Your task to perform on an android device: change keyboard looks Image 0: 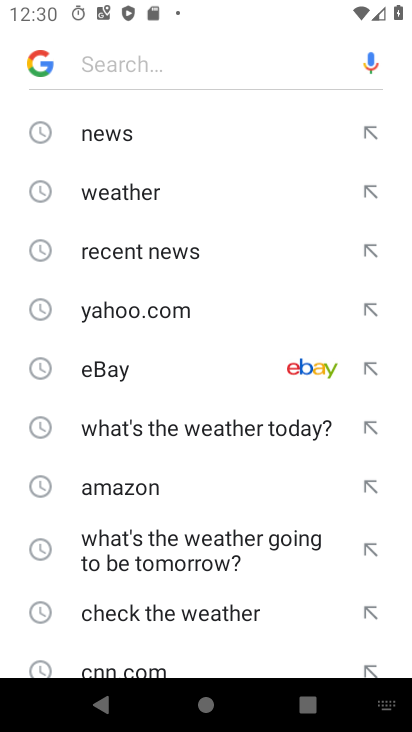
Step 0: press home button
Your task to perform on an android device: change keyboard looks Image 1: 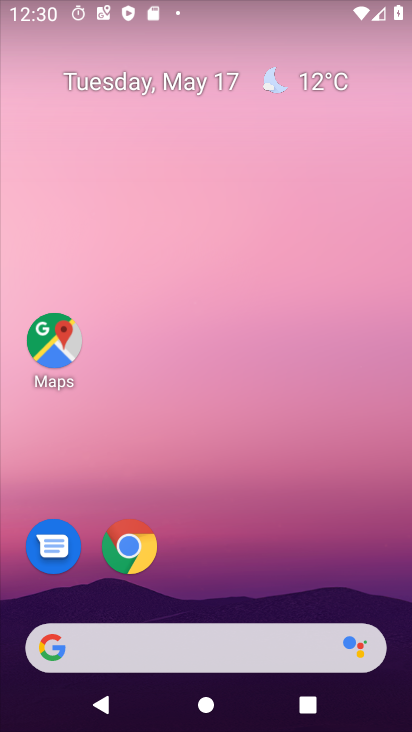
Step 1: drag from (178, 647) to (299, 234)
Your task to perform on an android device: change keyboard looks Image 2: 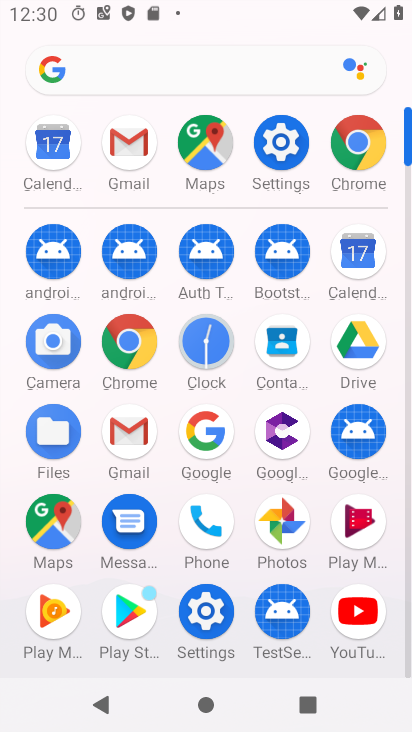
Step 2: click (276, 154)
Your task to perform on an android device: change keyboard looks Image 3: 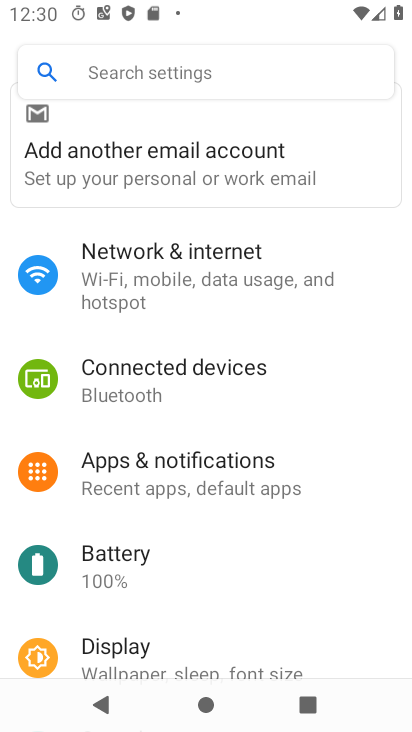
Step 3: drag from (187, 612) to (309, 264)
Your task to perform on an android device: change keyboard looks Image 4: 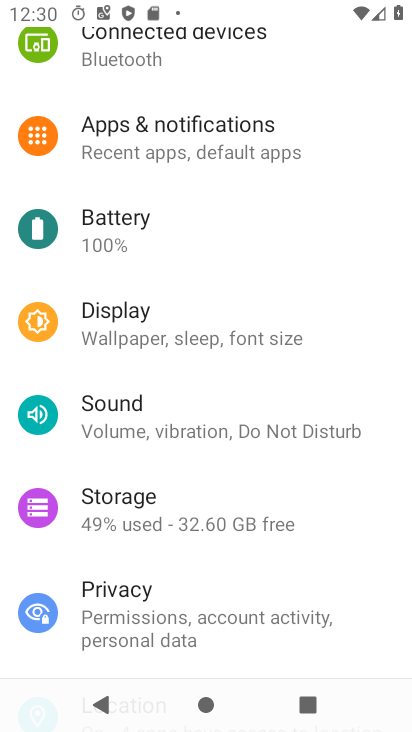
Step 4: drag from (212, 545) to (403, 79)
Your task to perform on an android device: change keyboard looks Image 5: 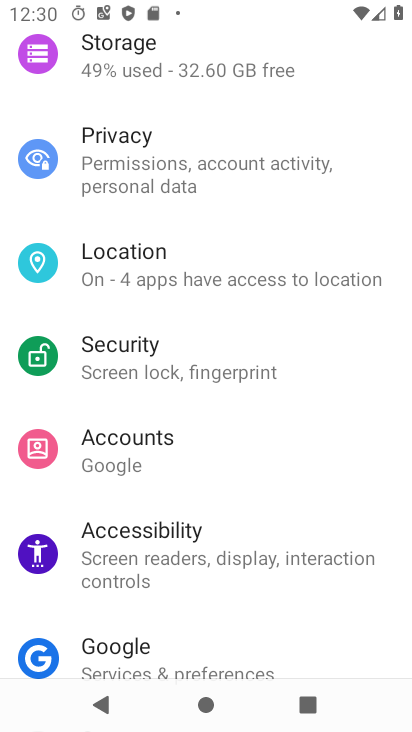
Step 5: drag from (208, 612) to (337, 195)
Your task to perform on an android device: change keyboard looks Image 6: 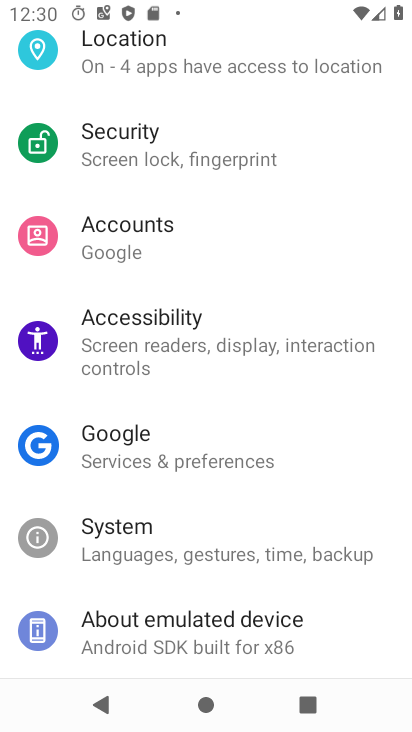
Step 6: click (202, 547)
Your task to perform on an android device: change keyboard looks Image 7: 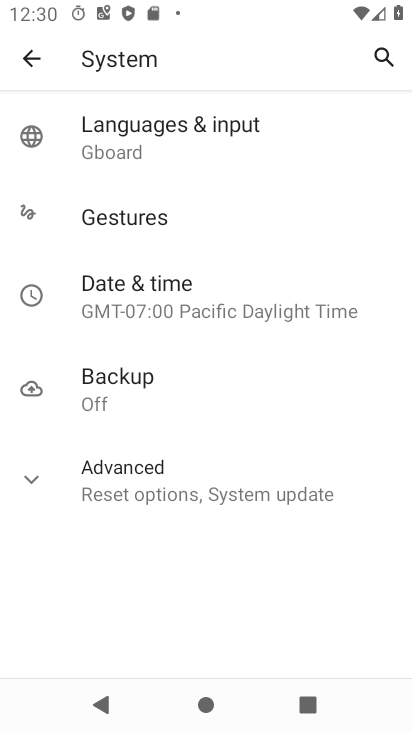
Step 7: click (192, 131)
Your task to perform on an android device: change keyboard looks Image 8: 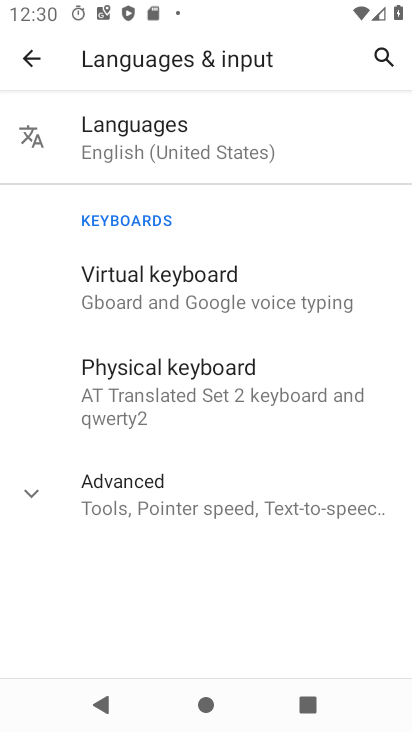
Step 8: click (195, 285)
Your task to perform on an android device: change keyboard looks Image 9: 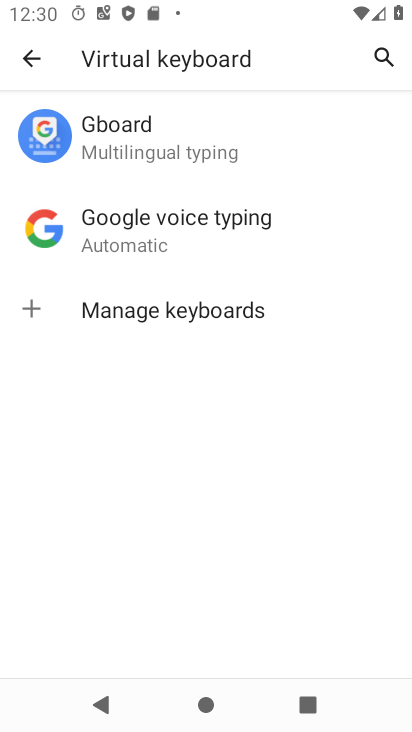
Step 9: click (166, 131)
Your task to perform on an android device: change keyboard looks Image 10: 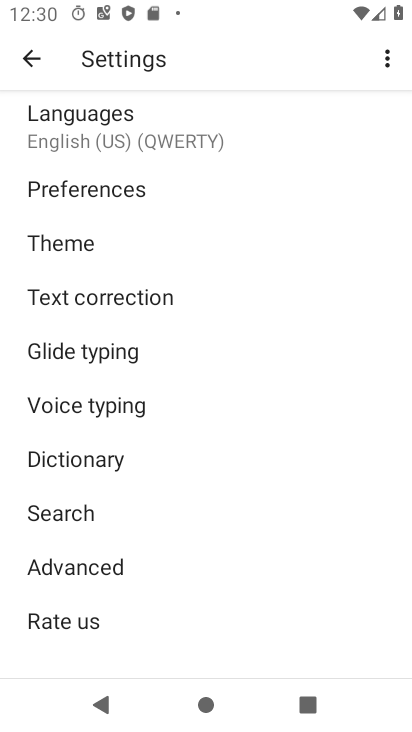
Step 10: click (74, 233)
Your task to perform on an android device: change keyboard looks Image 11: 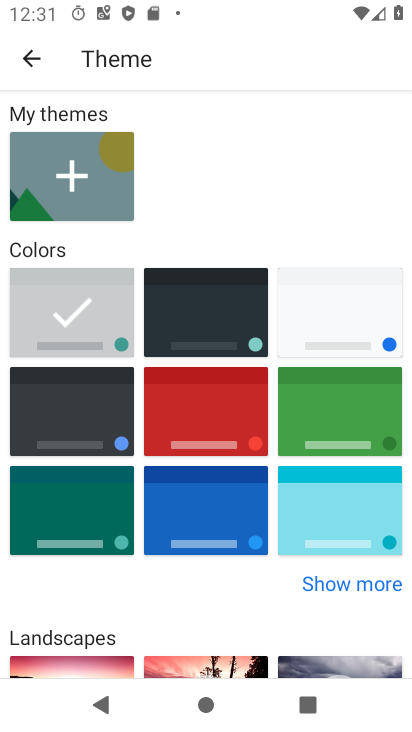
Step 11: drag from (259, 608) to (336, 222)
Your task to perform on an android device: change keyboard looks Image 12: 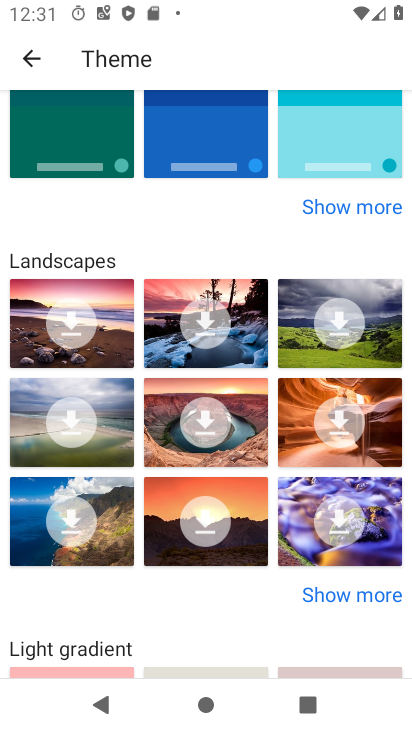
Step 12: click (232, 142)
Your task to perform on an android device: change keyboard looks Image 13: 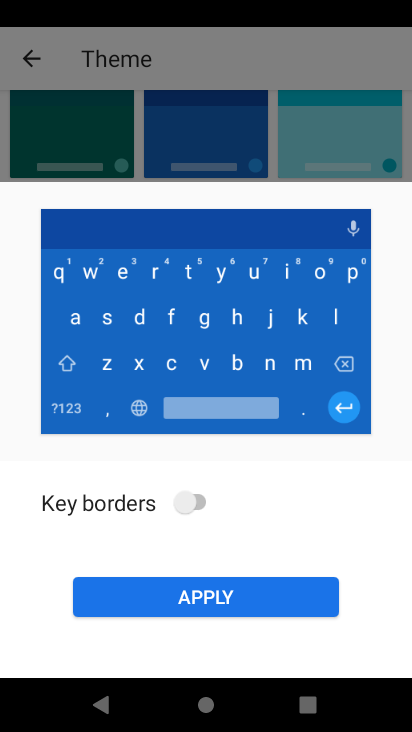
Step 13: click (171, 595)
Your task to perform on an android device: change keyboard looks Image 14: 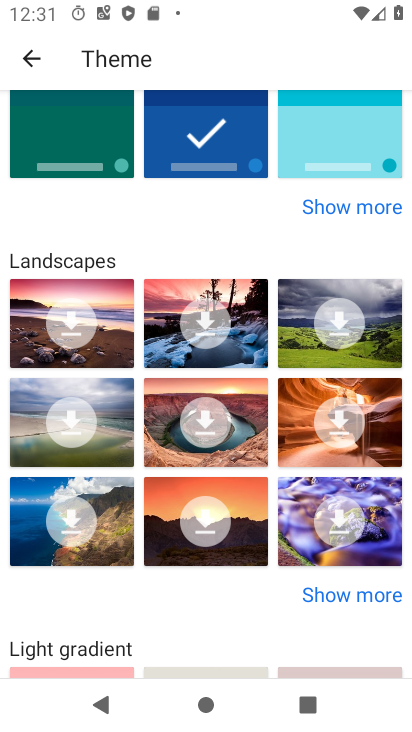
Step 14: task complete